Your task to perform on an android device: Open settings Image 0: 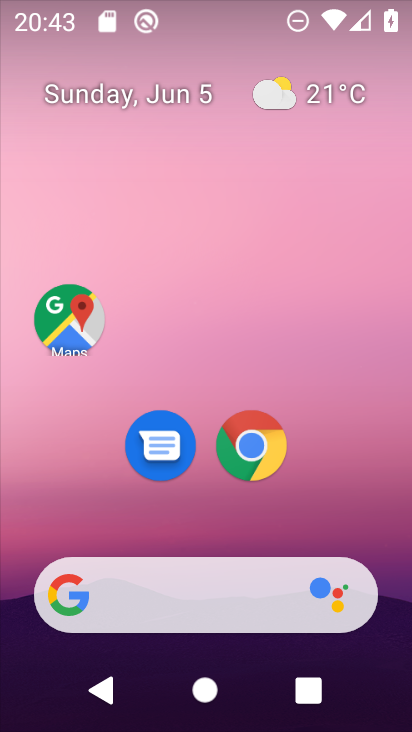
Step 0: drag from (336, 491) to (271, 96)
Your task to perform on an android device: Open settings Image 1: 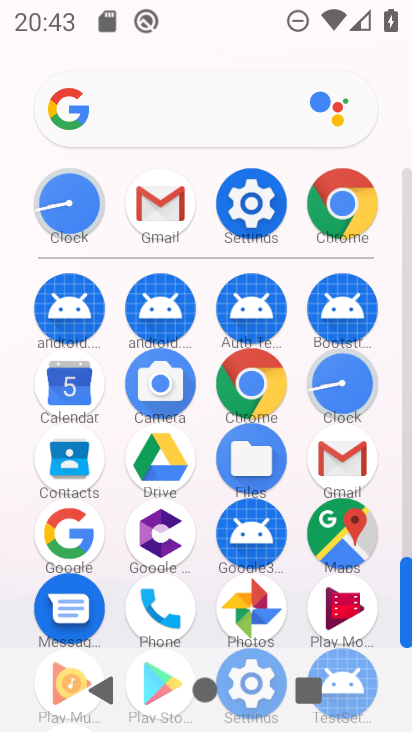
Step 1: click (242, 205)
Your task to perform on an android device: Open settings Image 2: 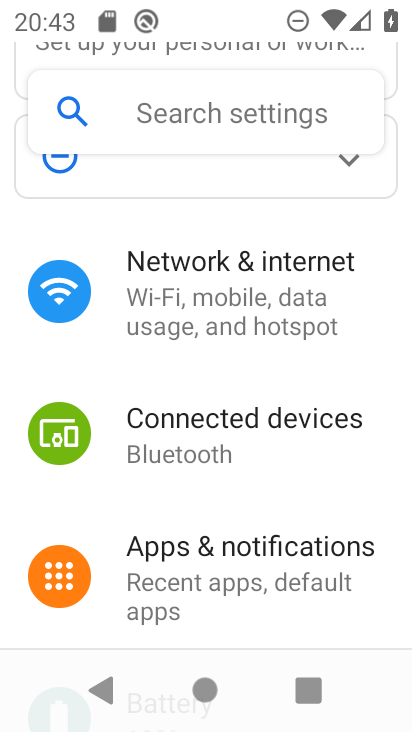
Step 2: task complete